Your task to perform on an android device: change the clock style Image 0: 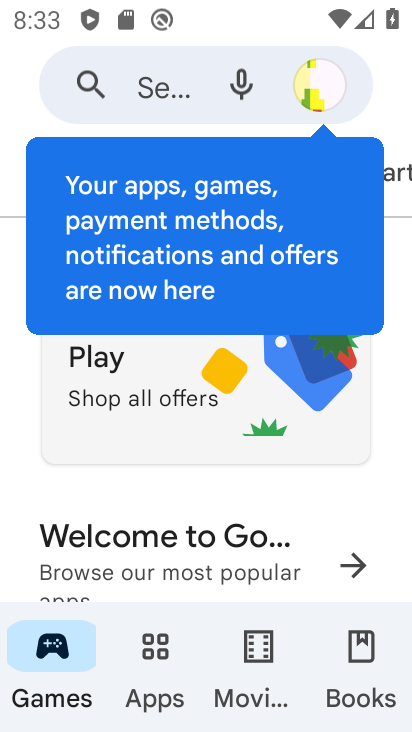
Step 0: press home button
Your task to perform on an android device: change the clock style Image 1: 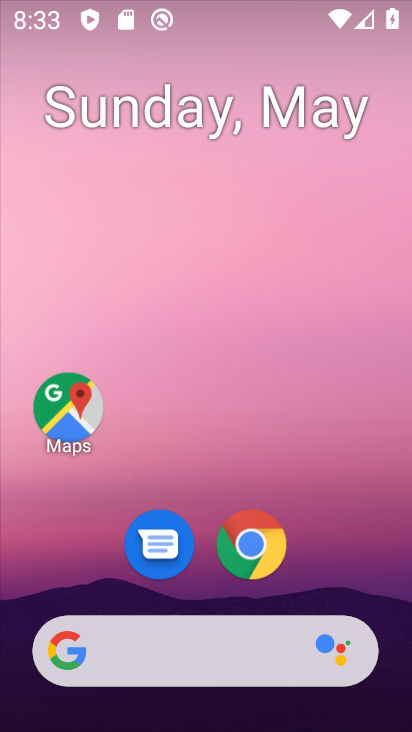
Step 1: drag from (365, 559) to (313, 0)
Your task to perform on an android device: change the clock style Image 2: 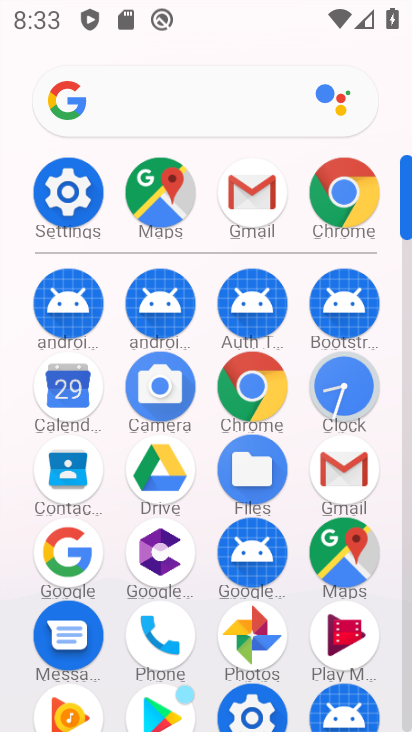
Step 2: click (353, 381)
Your task to perform on an android device: change the clock style Image 3: 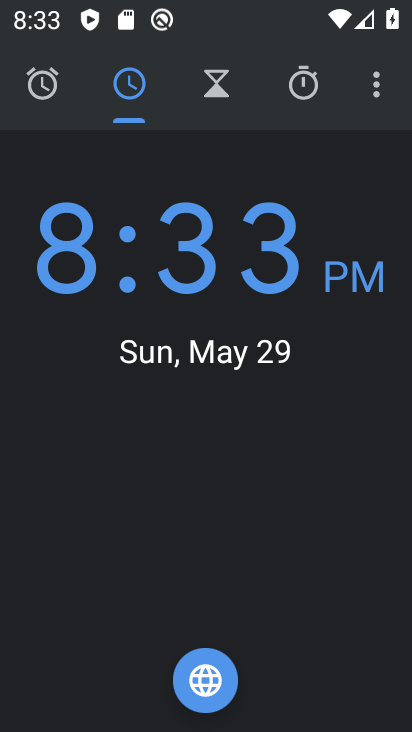
Step 3: click (372, 70)
Your task to perform on an android device: change the clock style Image 4: 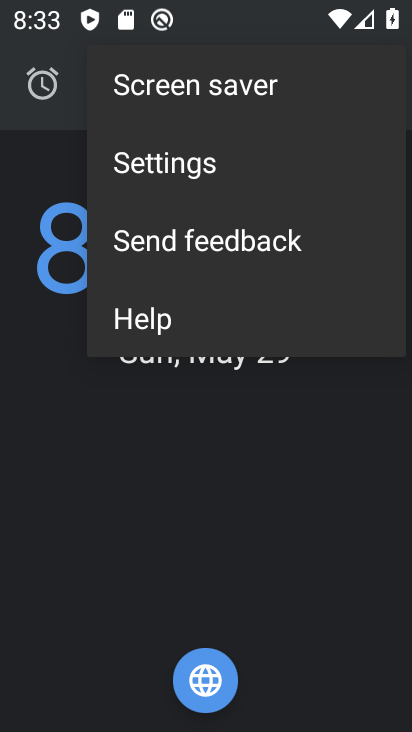
Step 4: click (211, 168)
Your task to perform on an android device: change the clock style Image 5: 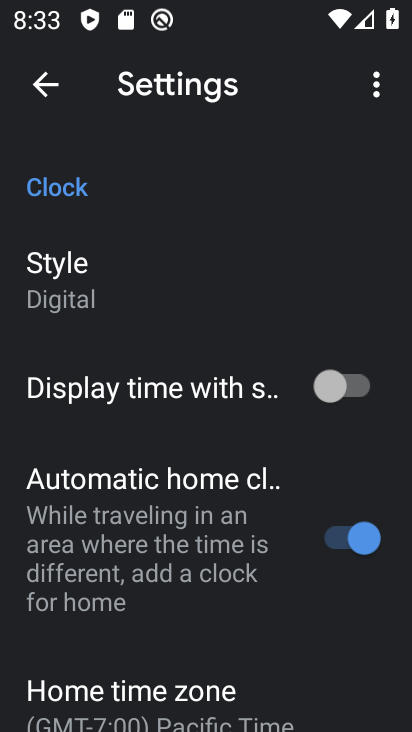
Step 5: click (57, 294)
Your task to perform on an android device: change the clock style Image 6: 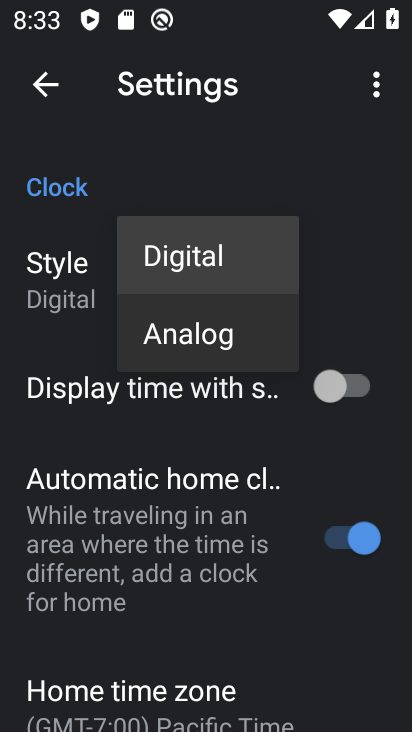
Step 6: click (204, 342)
Your task to perform on an android device: change the clock style Image 7: 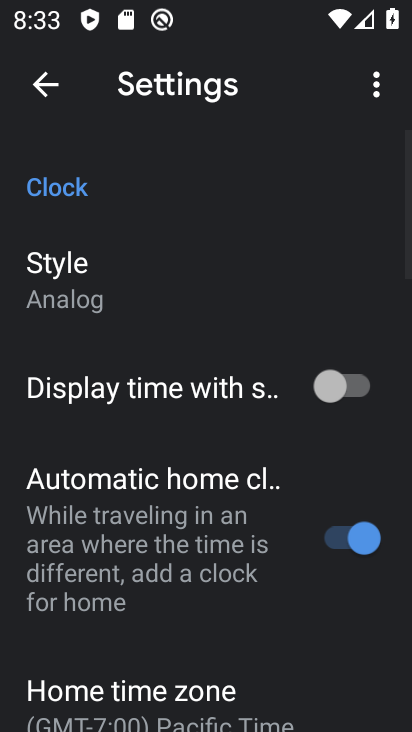
Step 7: task complete